Your task to perform on an android device: turn vacation reply on in the gmail app Image 0: 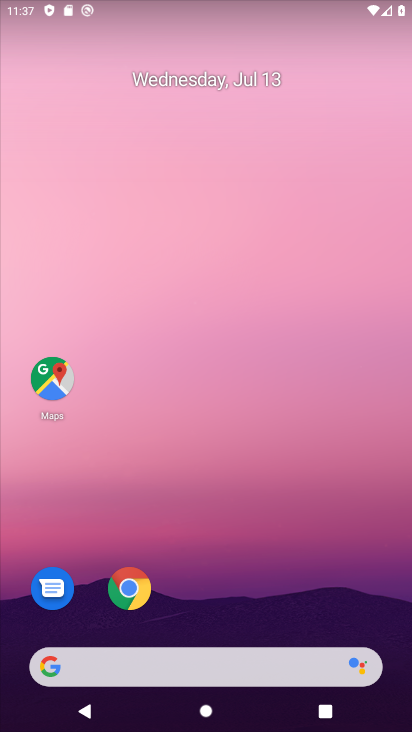
Step 0: drag from (182, 635) to (278, 32)
Your task to perform on an android device: turn vacation reply on in the gmail app Image 1: 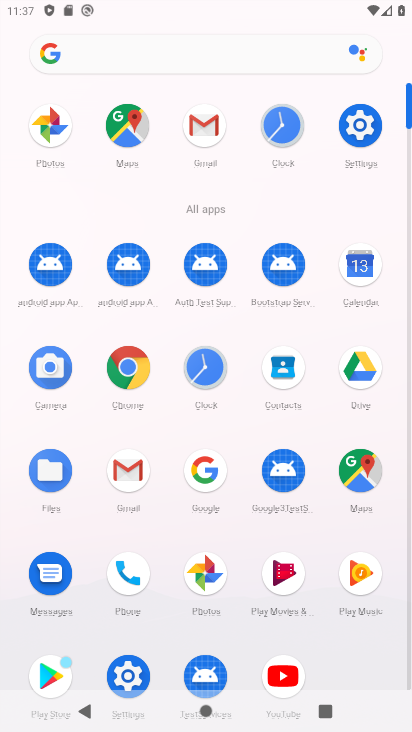
Step 1: click (120, 477)
Your task to perform on an android device: turn vacation reply on in the gmail app Image 2: 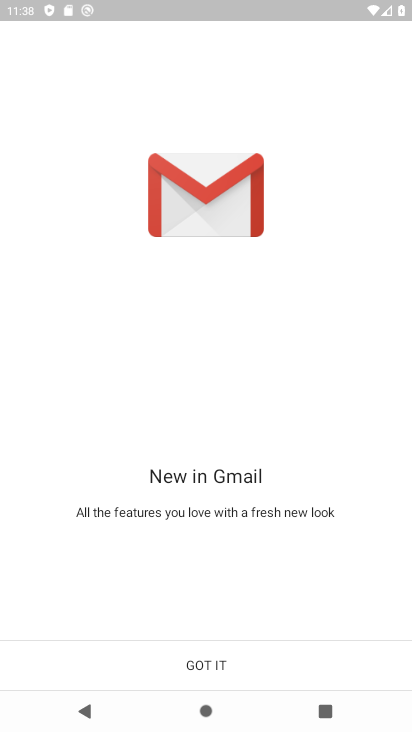
Step 2: click (204, 673)
Your task to perform on an android device: turn vacation reply on in the gmail app Image 3: 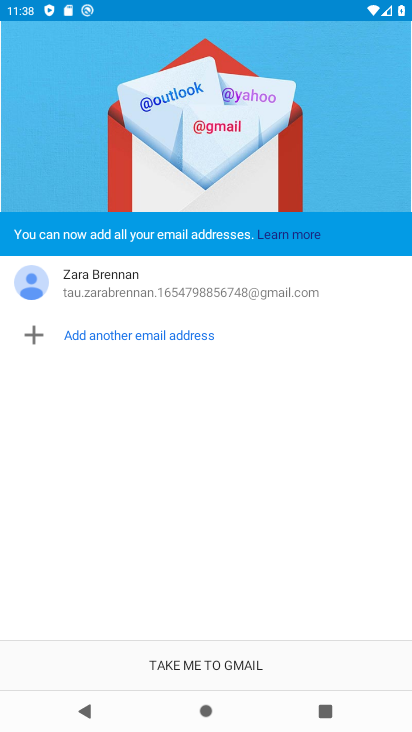
Step 3: click (204, 673)
Your task to perform on an android device: turn vacation reply on in the gmail app Image 4: 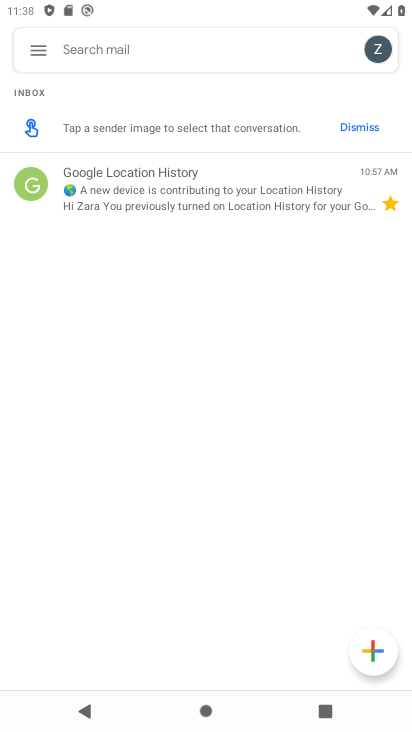
Step 4: click (48, 52)
Your task to perform on an android device: turn vacation reply on in the gmail app Image 5: 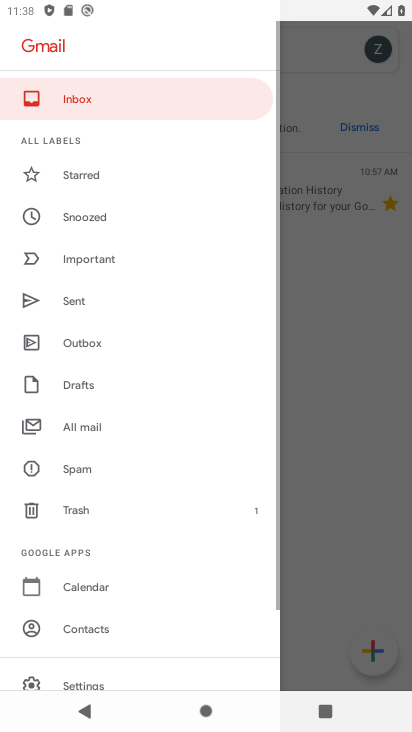
Step 5: drag from (76, 625) to (130, 332)
Your task to perform on an android device: turn vacation reply on in the gmail app Image 6: 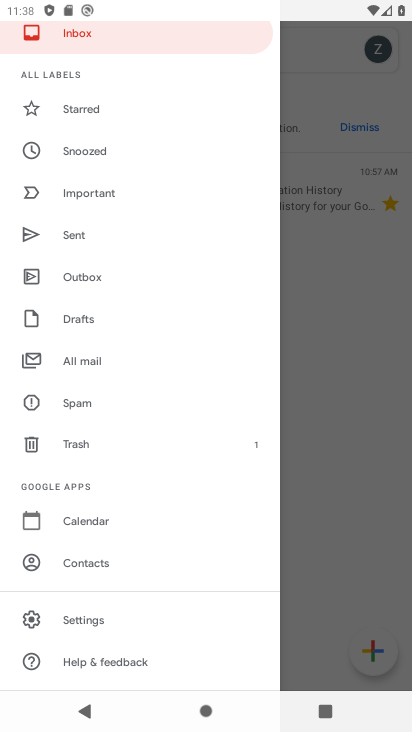
Step 6: click (100, 616)
Your task to perform on an android device: turn vacation reply on in the gmail app Image 7: 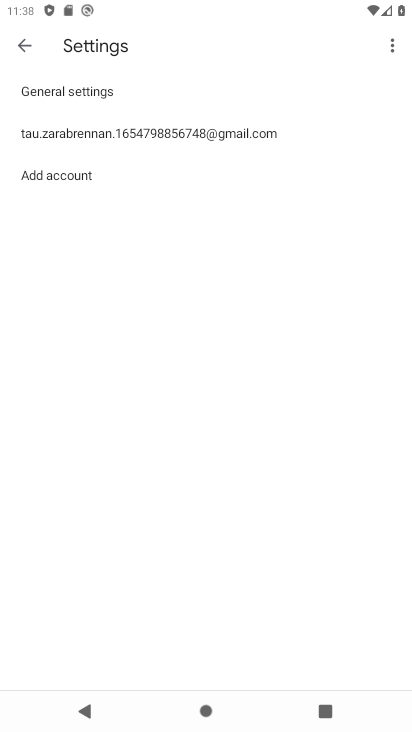
Step 7: drag from (93, 642) to (211, 370)
Your task to perform on an android device: turn vacation reply on in the gmail app Image 8: 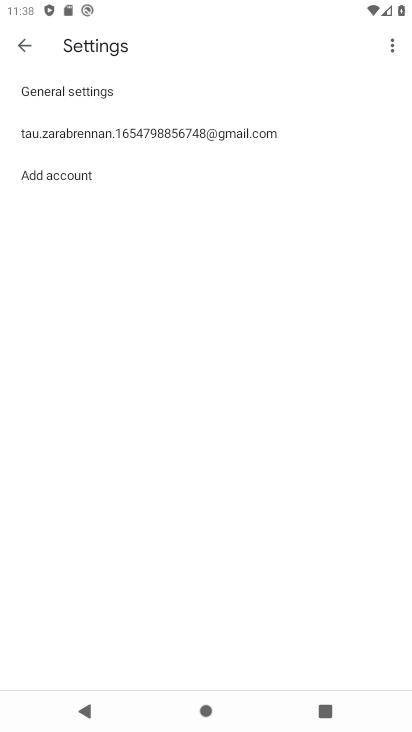
Step 8: click (293, 127)
Your task to perform on an android device: turn vacation reply on in the gmail app Image 9: 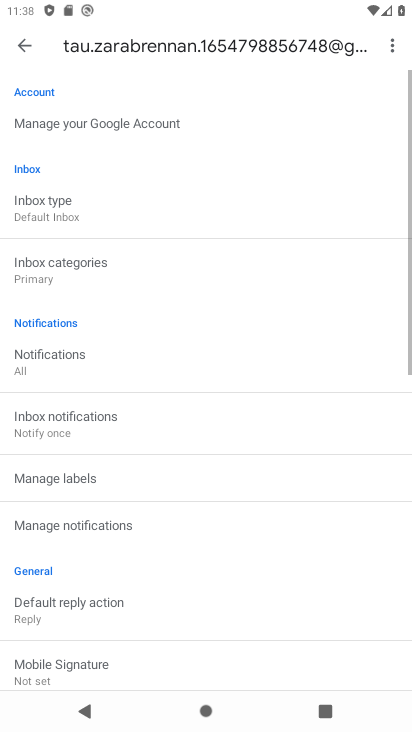
Step 9: drag from (214, 627) to (294, 229)
Your task to perform on an android device: turn vacation reply on in the gmail app Image 10: 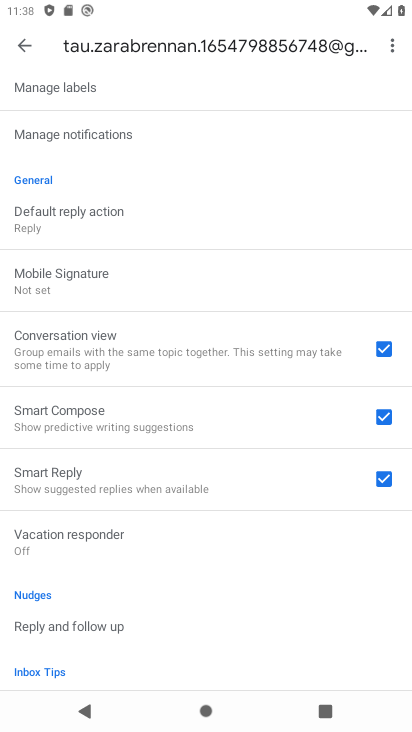
Step 10: click (104, 549)
Your task to perform on an android device: turn vacation reply on in the gmail app Image 11: 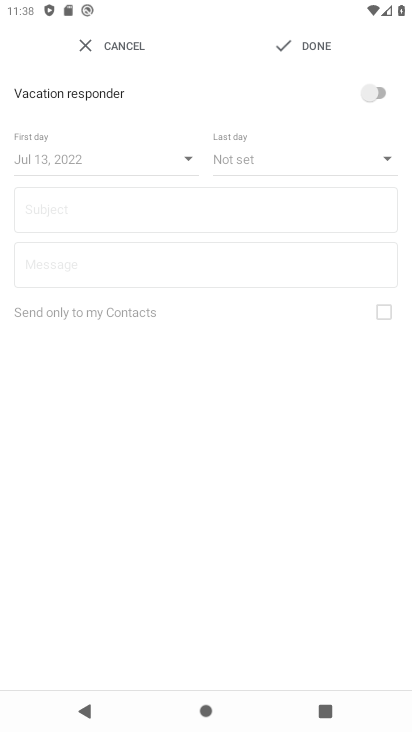
Step 11: click (383, 92)
Your task to perform on an android device: turn vacation reply on in the gmail app Image 12: 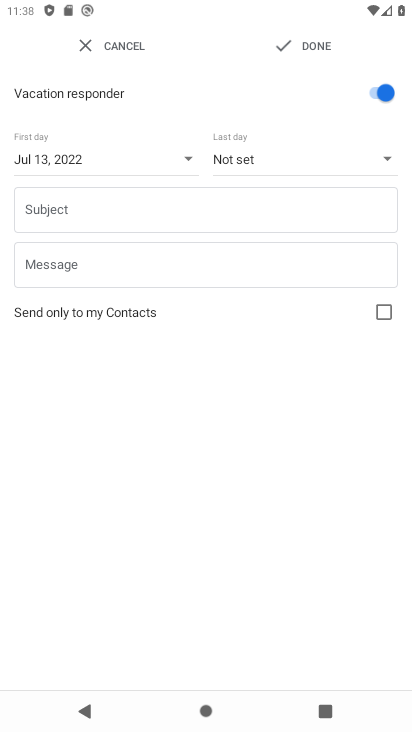
Step 12: click (208, 211)
Your task to perform on an android device: turn vacation reply on in the gmail app Image 13: 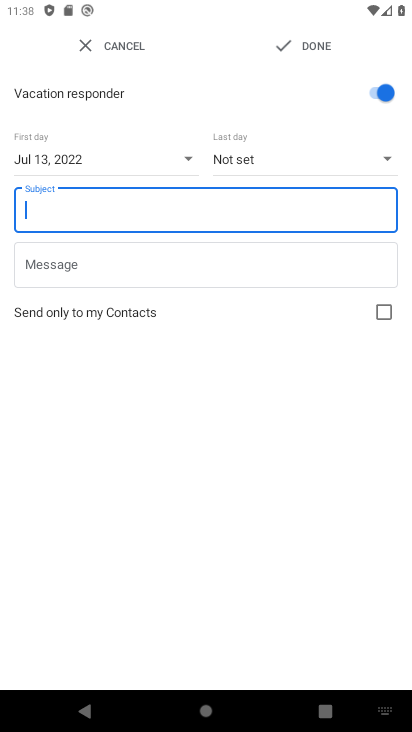
Step 13: type "vacay"
Your task to perform on an android device: turn vacation reply on in the gmail app Image 14: 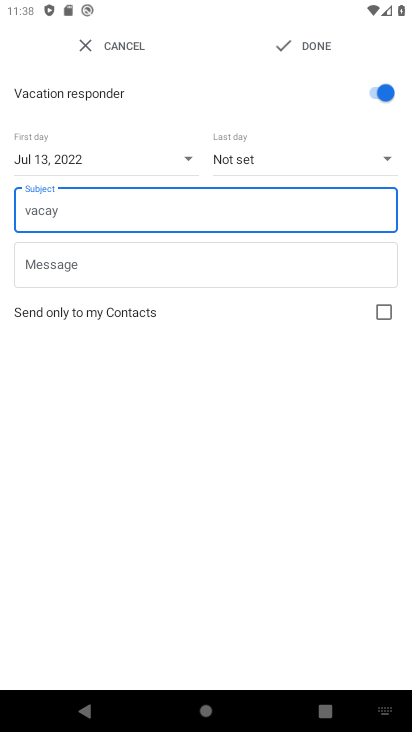
Step 14: click (120, 267)
Your task to perform on an android device: turn vacation reply on in the gmail app Image 15: 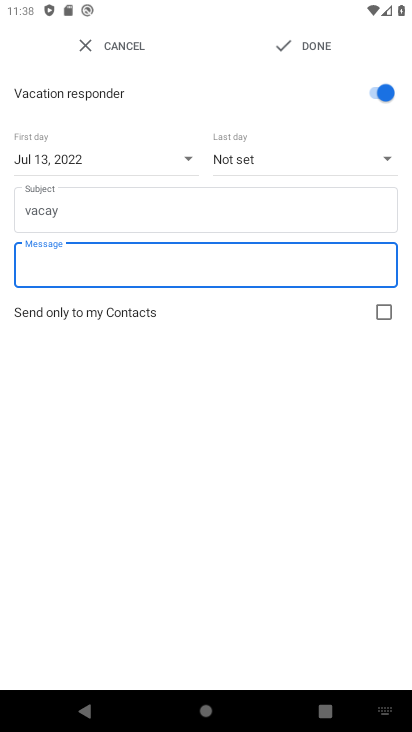
Step 15: type "dnd"
Your task to perform on an android device: turn vacation reply on in the gmail app Image 16: 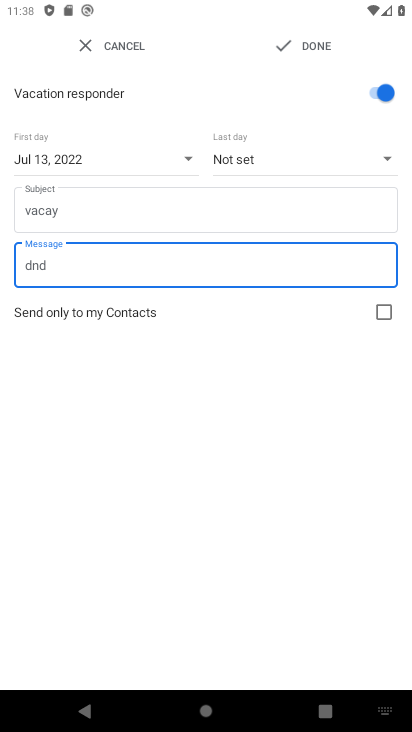
Step 16: click (301, 160)
Your task to perform on an android device: turn vacation reply on in the gmail app Image 17: 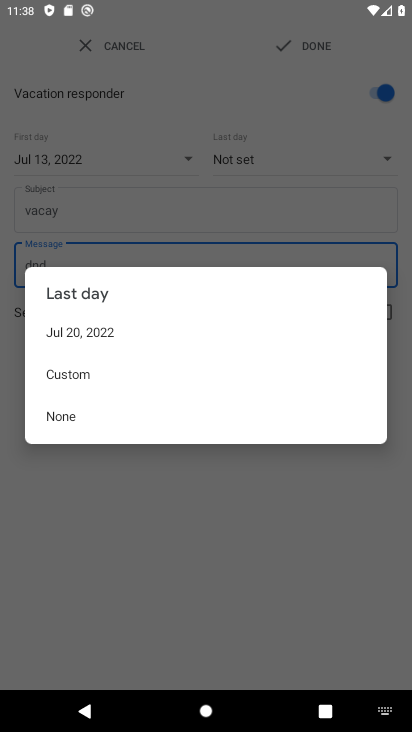
Step 17: click (161, 329)
Your task to perform on an android device: turn vacation reply on in the gmail app Image 18: 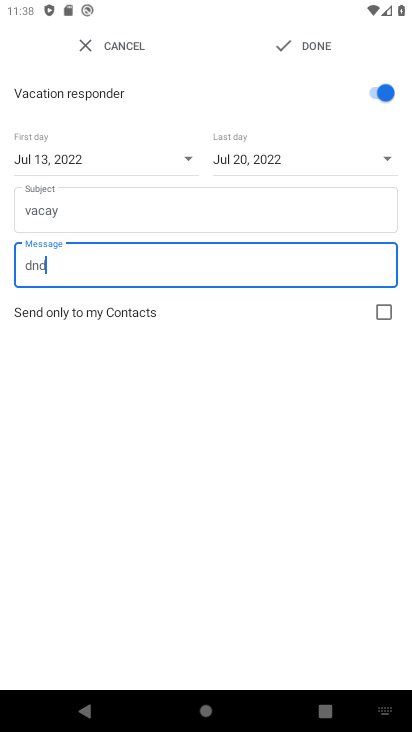
Step 18: click (314, 43)
Your task to perform on an android device: turn vacation reply on in the gmail app Image 19: 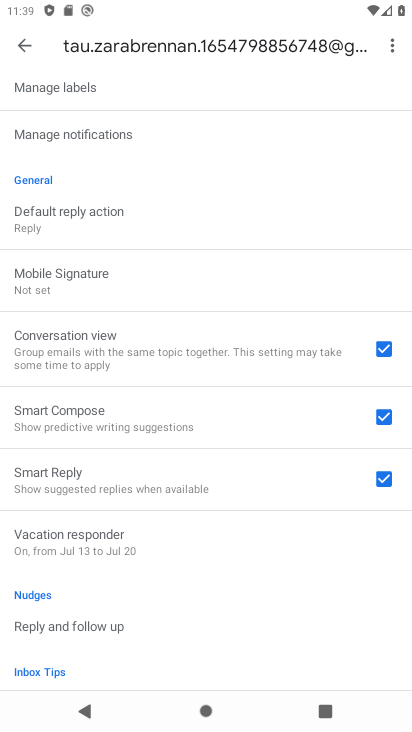
Step 19: task complete